Your task to perform on an android device: What's on my calendar today? Image 0: 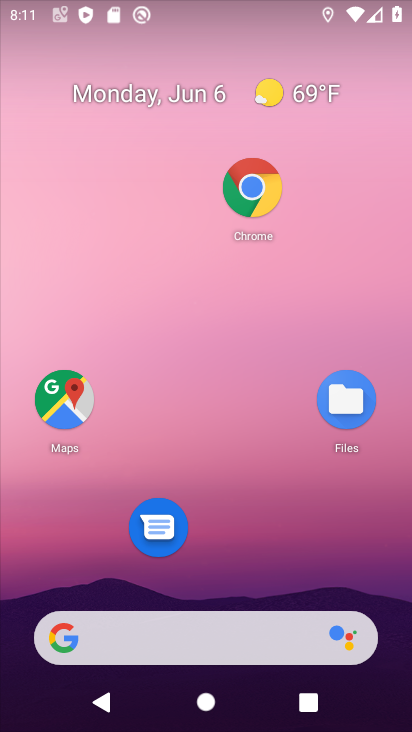
Step 0: drag from (209, 310) to (218, 41)
Your task to perform on an android device: What's on my calendar today? Image 1: 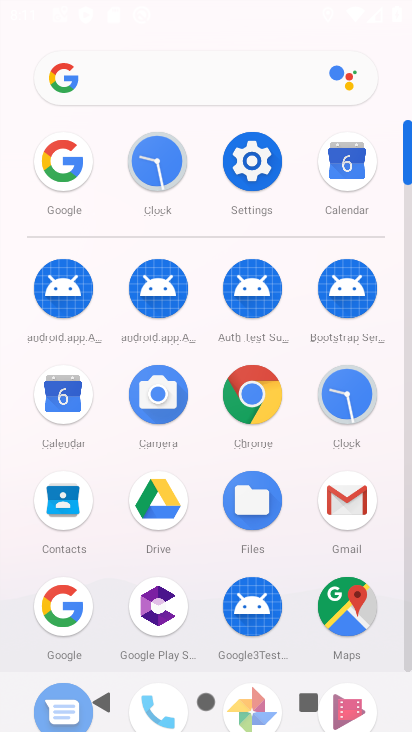
Step 1: click (257, 506)
Your task to perform on an android device: What's on my calendar today? Image 2: 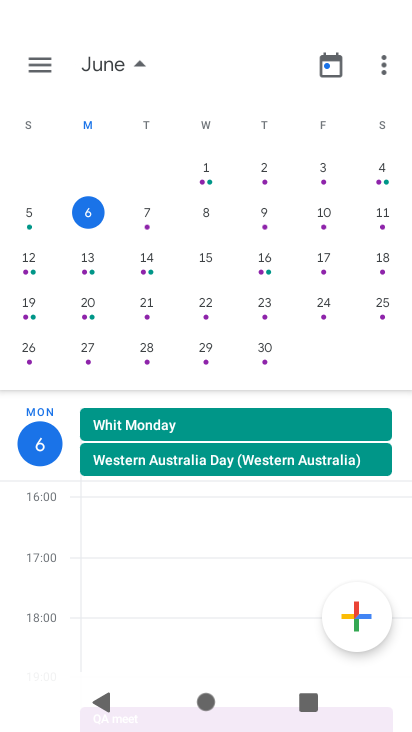
Step 2: drag from (250, 567) to (251, 108)
Your task to perform on an android device: What's on my calendar today? Image 3: 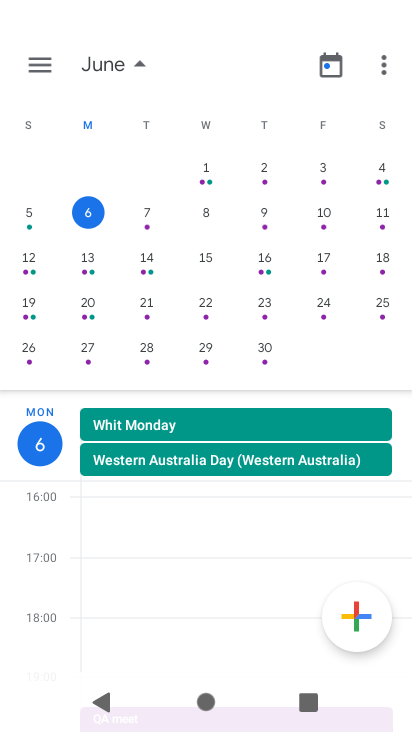
Step 3: click (65, 395)
Your task to perform on an android device: What's on my calendar today? Image 4: 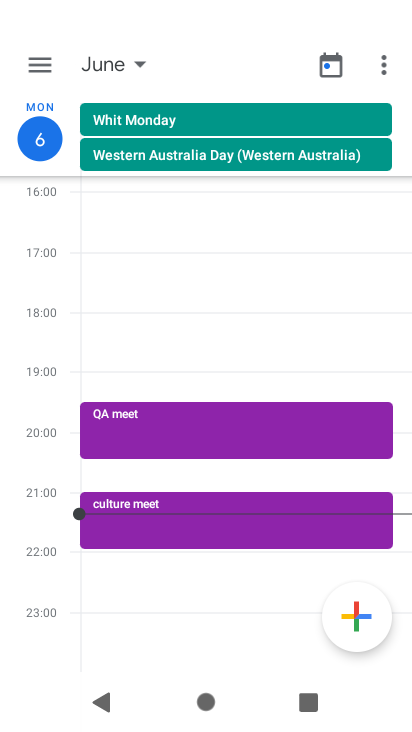
Step 4: click (130, 67)
Your task to perform on an android device: What's on my calendar today? Image 5: 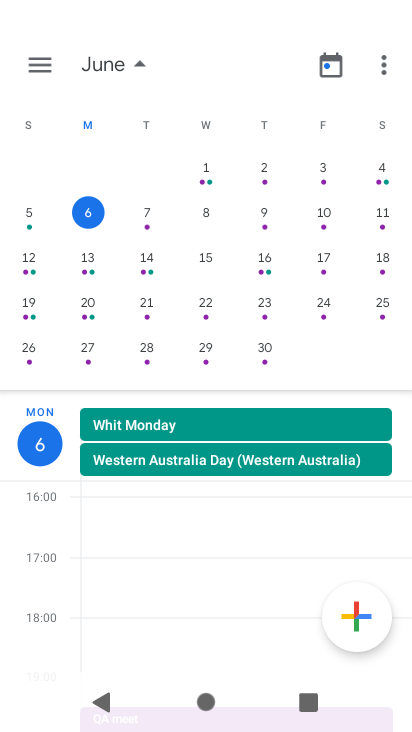
Step 5: click (90, 202)
Your task to perform on an android device: What's on my calendar today? Image 6: 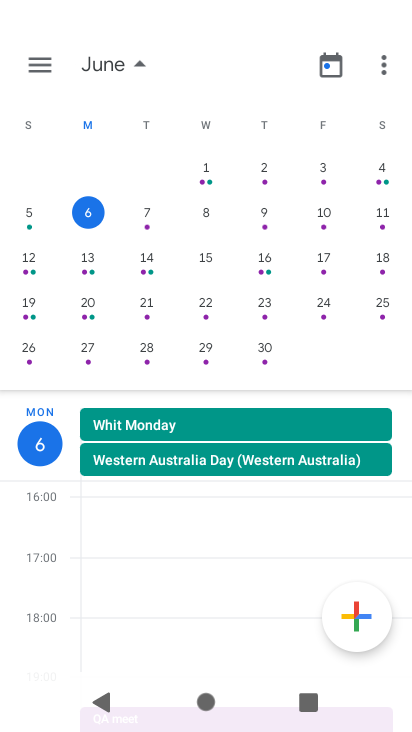
Step 6: click (91, 216)
Your task to perform on an android device: What's on my calendar today? Image 7: 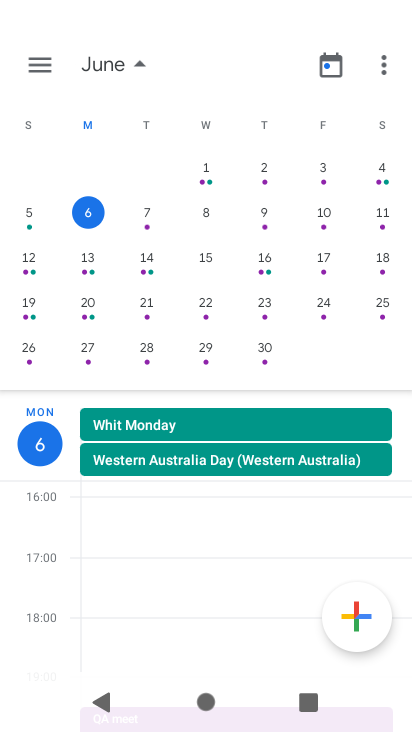
Step 7: task complete